Your task to perform on an android device: turn on airplane mode Image 0: 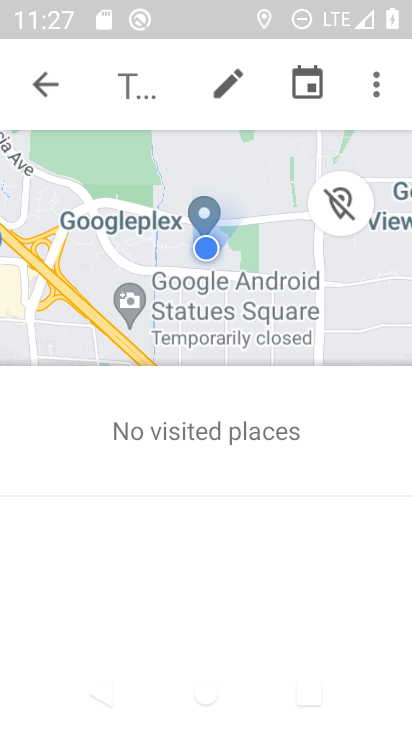
Step 0: press home button
Your task to perform on an android device: turn on airplane mode Image 1: 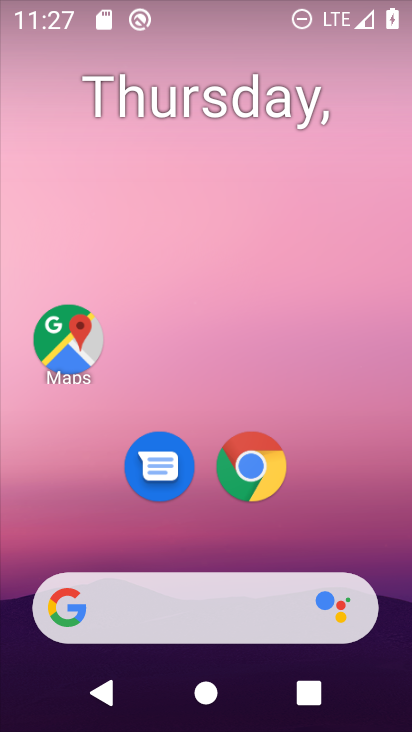
Step 1: drag from (309, 500) to (334, 12)
Your task to perform on an android device: turn on airplane mode Image 2: 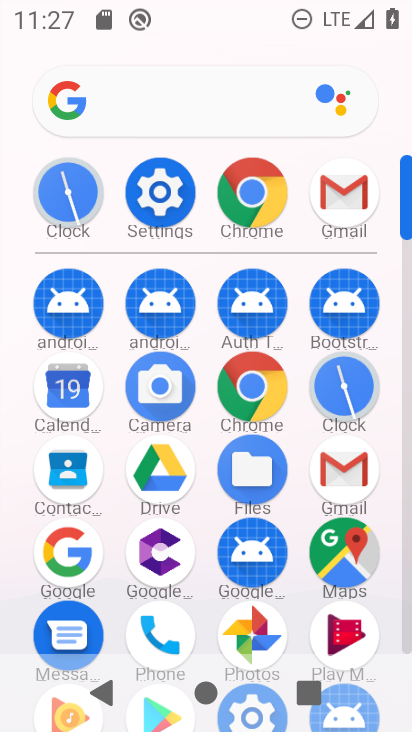
Step 2: click (163, 230)
Your task to perform on an android device: turn on airplane mode Image 3: 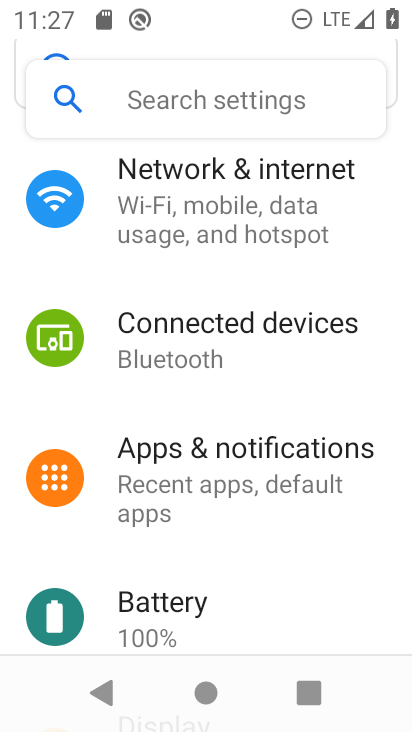
Step 3: click (262, 151)
Your task to perform on an android device: turn on airplane mode Image 4: 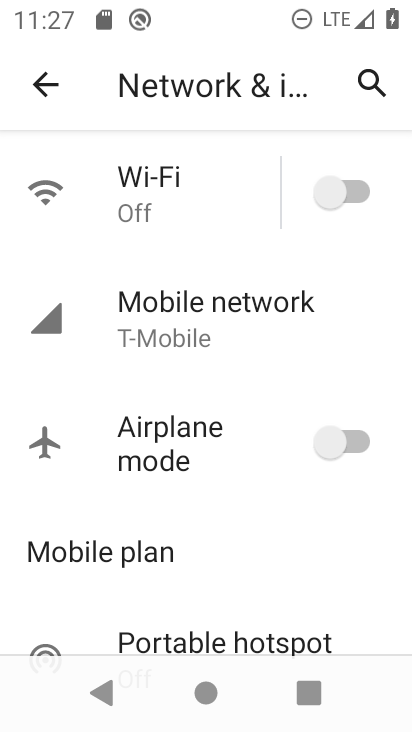
Step 4: click (361, 432)
Your task to perform on an android device: turn on airplane mode Image 5: 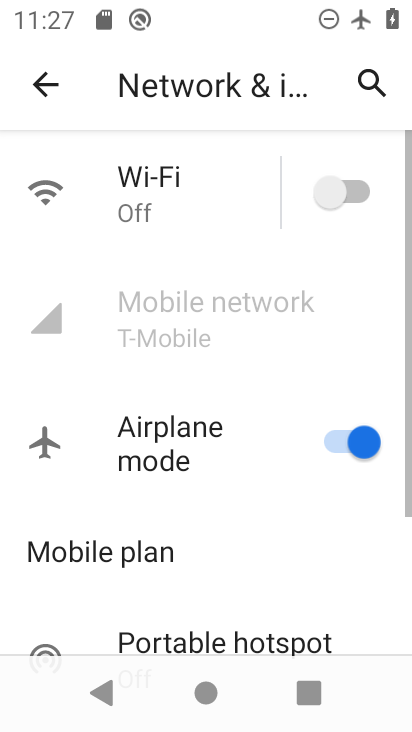
Step 5: task complete